Your task to perform on an android device: See recent photos Image 0: 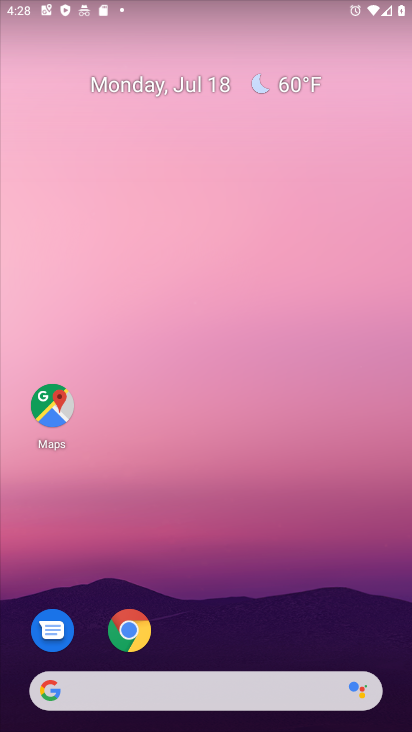
Step 0: drag from (308, 680) to (270, 103)
Your task to perform on an android device: See recent photos Image 1: 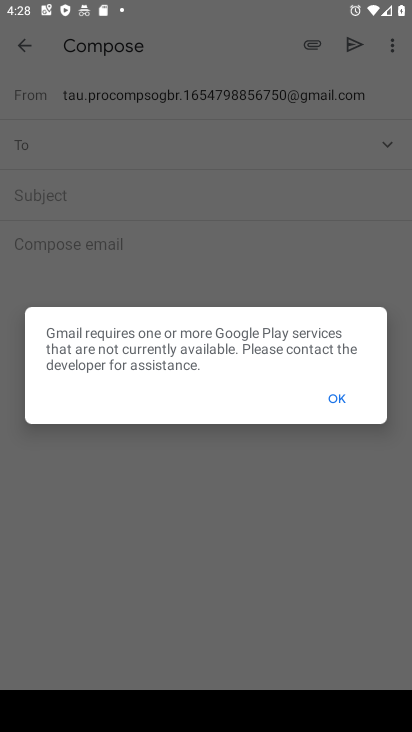
Step 1: click (345, 372)
Your task to perform on an android device: See recent photos Image 2: 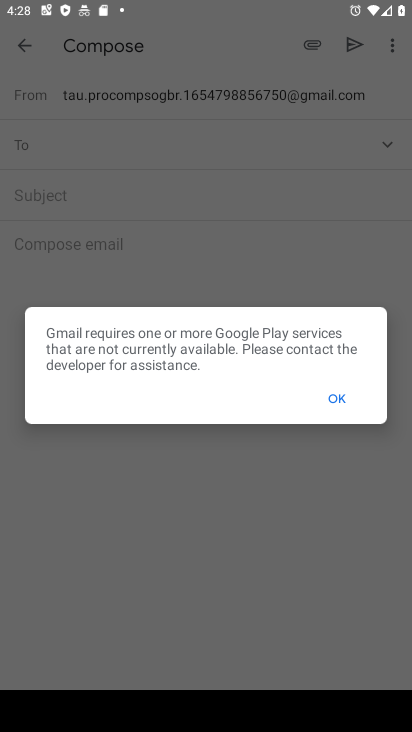
Step 2: click (345, 398)
Your task to perform on an android device: See recent photos Image 3: 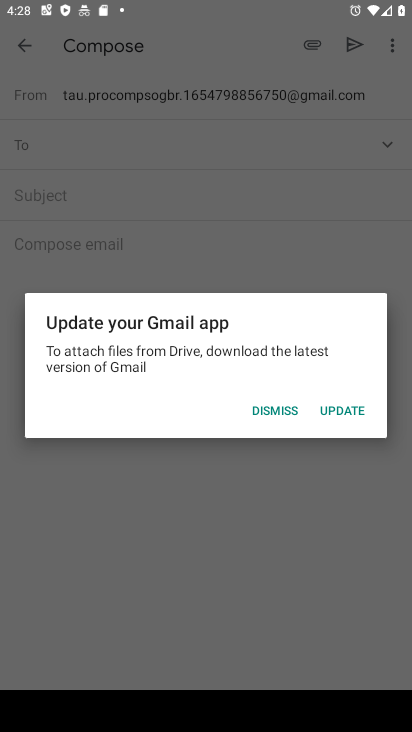
Step 3: click (345, 398)
Your task to perform on an android device: See recent photos Image 4: 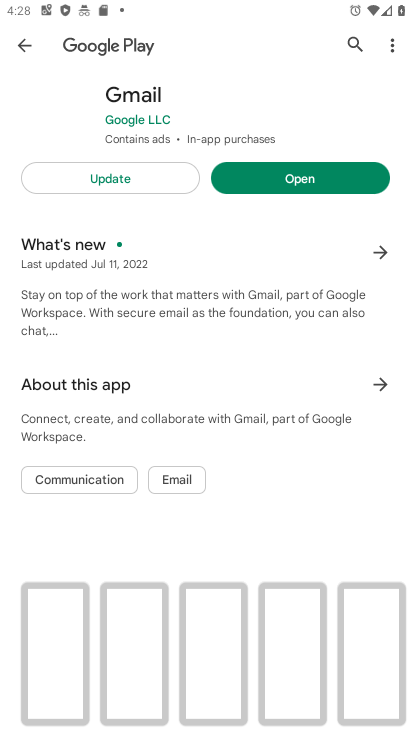
Step 4: press back button
Your task to perform on an android device: See recent photos Image 5: 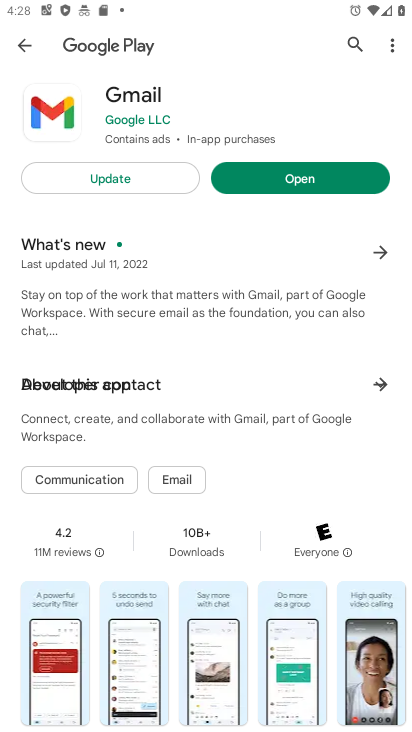
Step 5: press home button
Your task to perform on an android device: See recent photos Image 6: 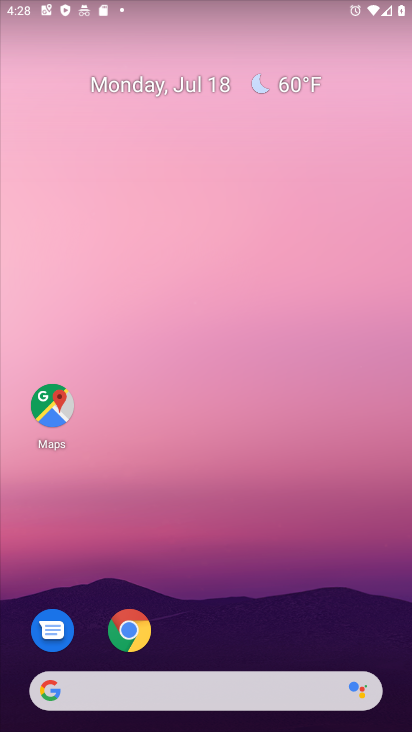
Step 6: drag from (160, 498) to (153, 84)
Your task to perform on an android device: See recent photos Image 7: 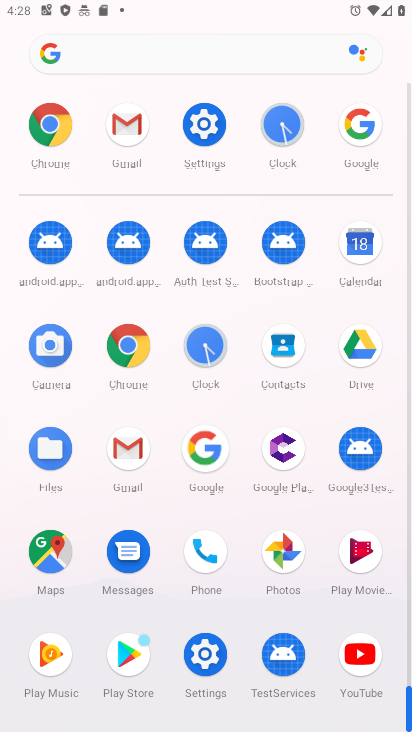
Step 7: click (281, 540)
Your task to perform on an android device: See recent photos Image 8: 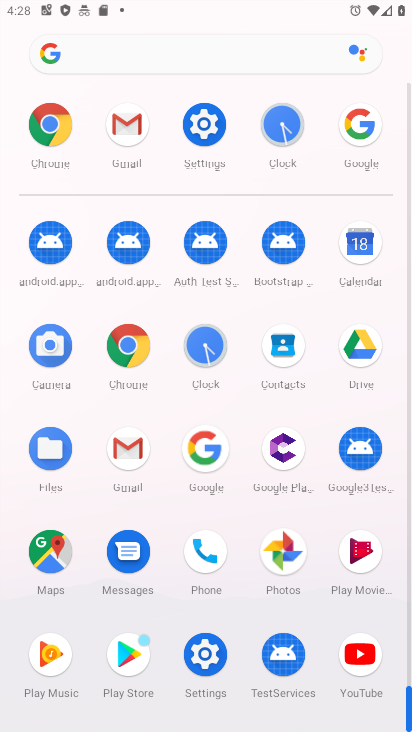
Step 8: click (281, 540)
Your task to perform on an android device: See recent photos Image 9: 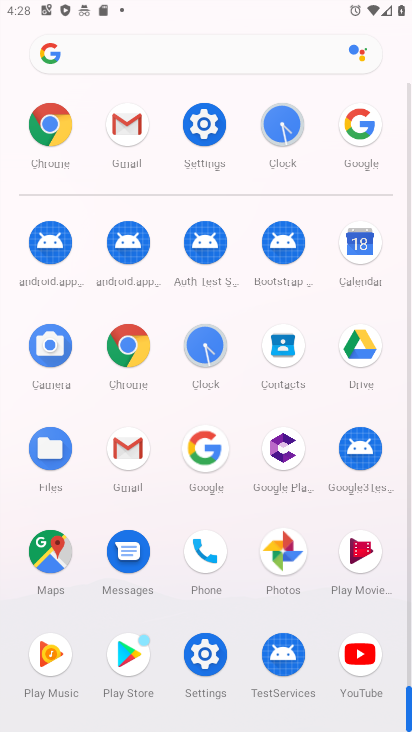
Step 9: click (281, 540)
Your task to perform on an android device: See recent photos Image 10: 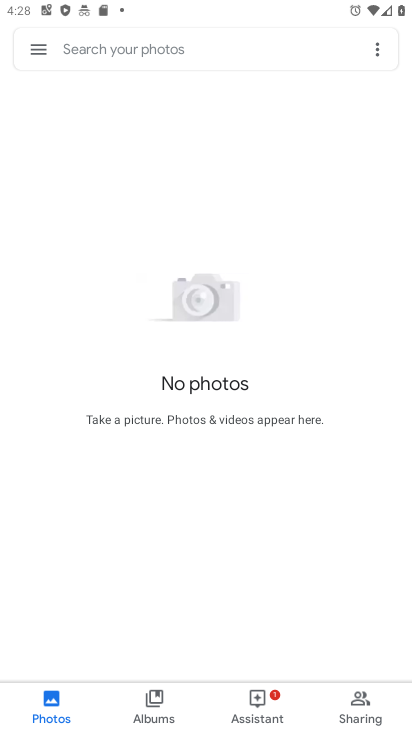
Step 10: task complete